Your task to perform on an android device: Turn off the flashlight Image 0: 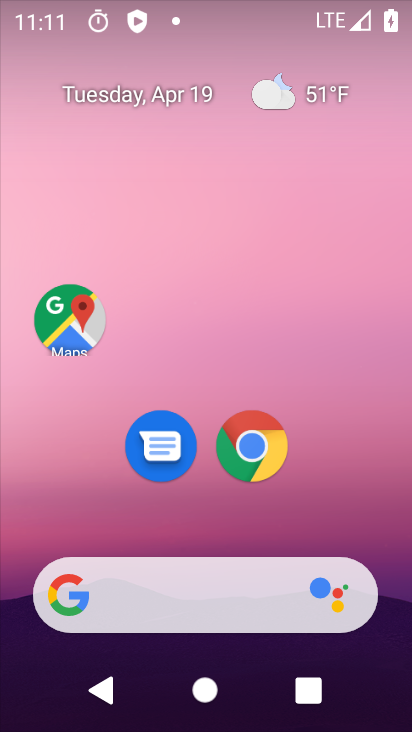
Step 0: drag from (379, 560) to (379, 146)
Your task to perform on an android device: Turn off the flashlight Image 1: 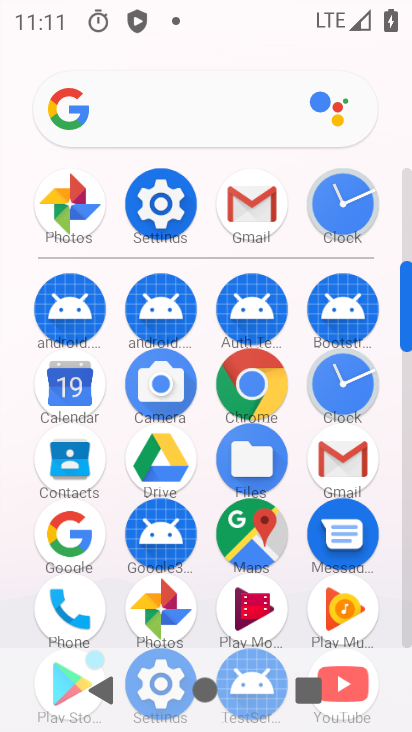
Step 1: click (175, 202)
Your task to perform on an android device: Turn off the flashlight Image 2: 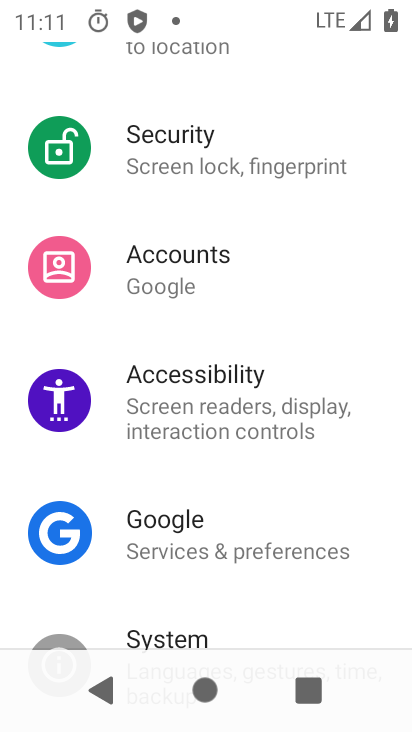
Step 2: click (160, 383)
Your task to perform on an android device: Turn off the flashlight Image 3: 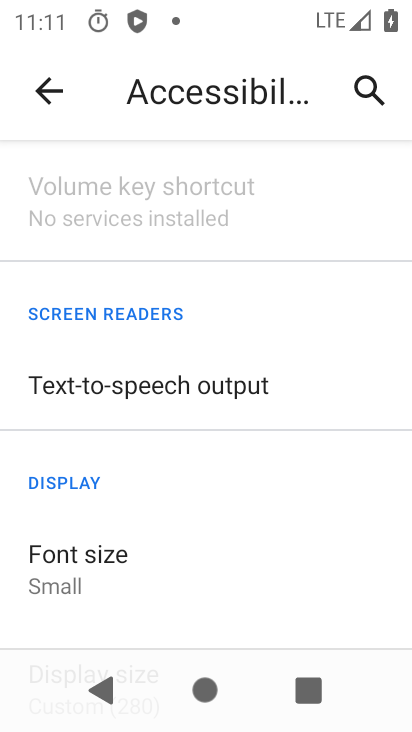
Step 3: task complete